Your task to perform on an android device: turn pop-ups off in chrome Image 0: 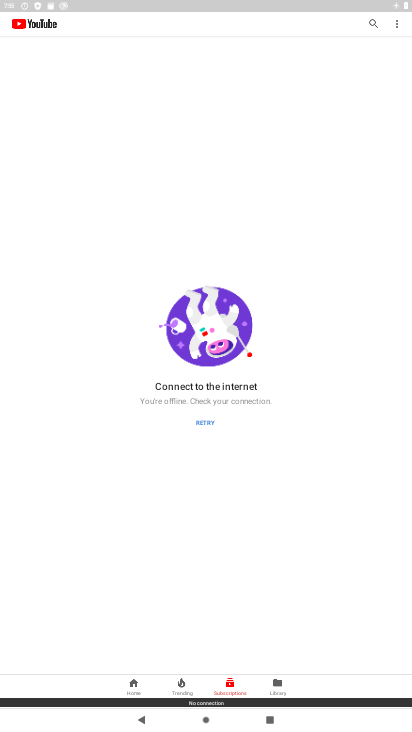
Step 0: press home button
Your task to perform on an android device: turn pop-ups off in chrome Image 1: 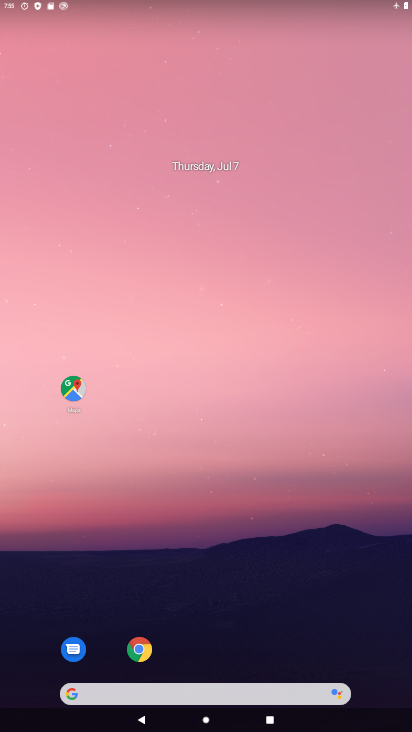
Step 1: drag from (235, 643) to (302, 49)
Your task to perform on an android device: turn pop-ups off in chrome Image 2: 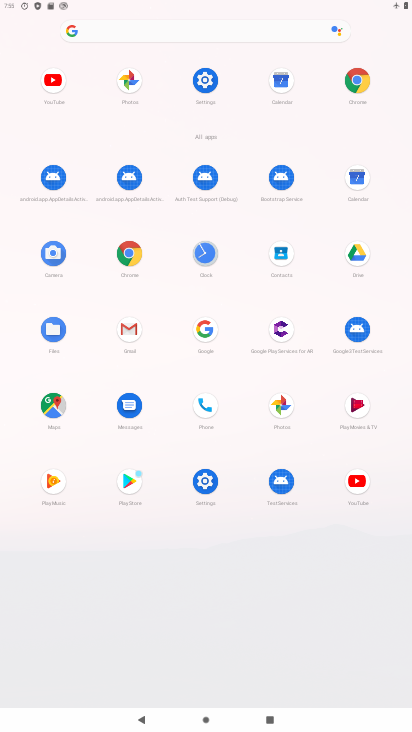
Step 2: click (124, 254)
Your task to perform on an android device: turn pop-ups off in chrome Image 3: 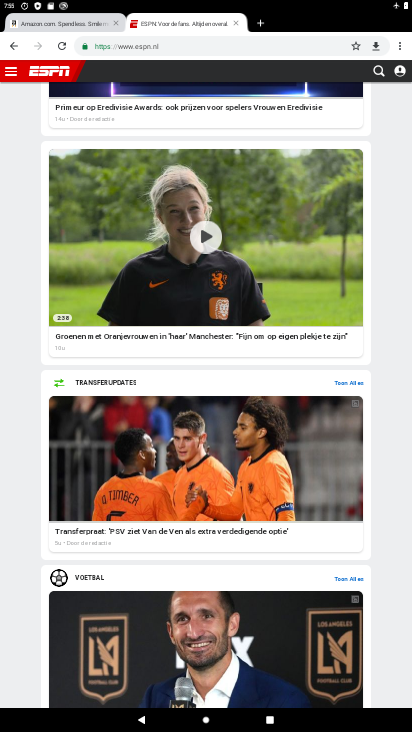
Step 3: click (395, 40)
Your task to perform on an android device: turn pop-ups off in chrome Image 4: 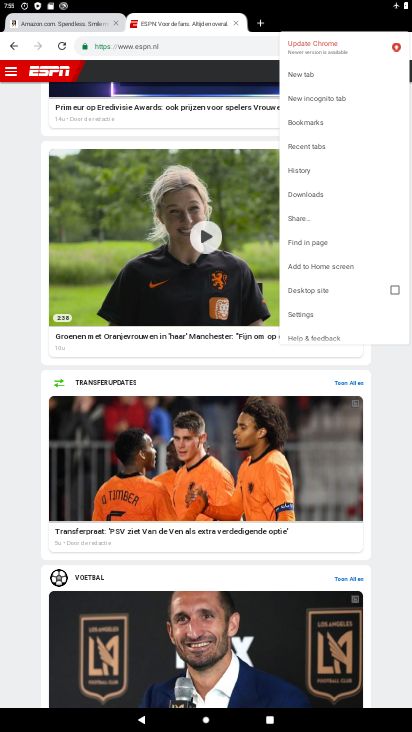
Step 4: click (321, 311)
Your task to perform on an android device: turn pop-ups off in chrome Image 5: 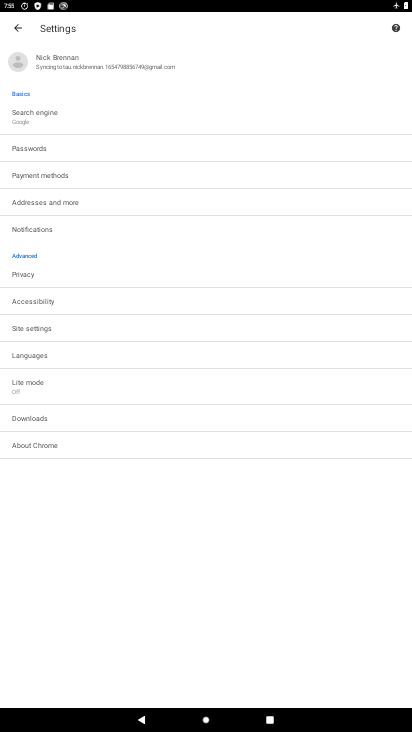
Step 5: click (67, 323)
Your task to perform on an android device: turn pop-ups off in chrome Image 6: 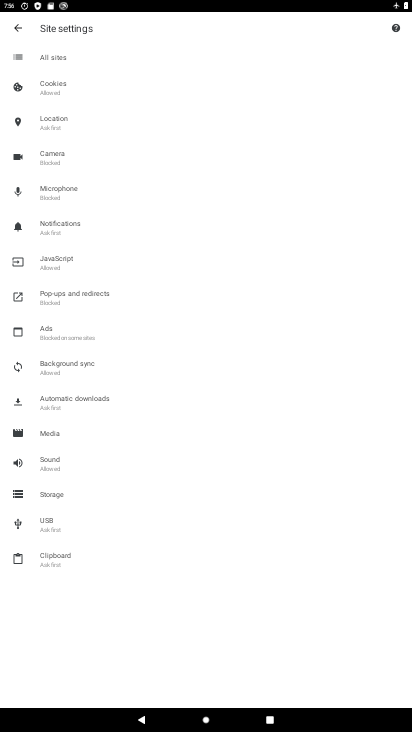
Step 6: click (70, 293)
Your task to perform on an android device: turn pop-ups off in chrome Image 7: 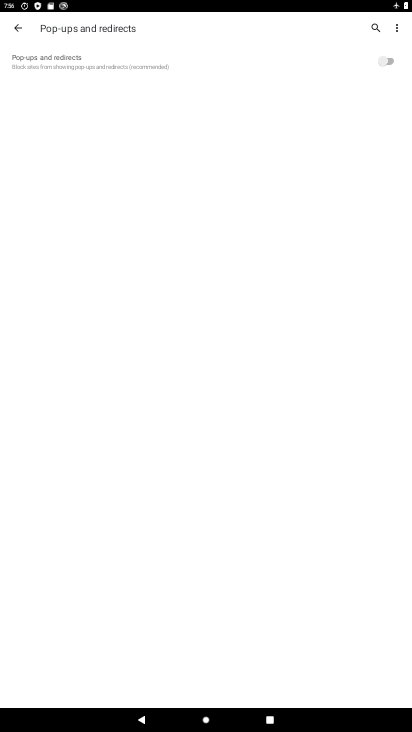
Step 7: task complete